Your task to perform on an android device: Open the phone app and click the voicemail tab. Image 0: 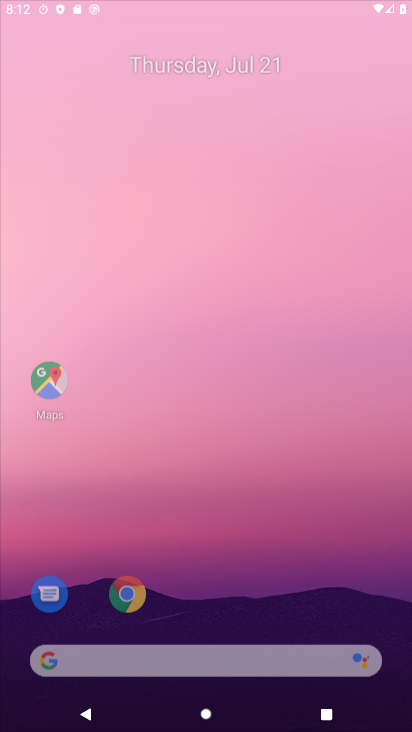
Step 0: press home button
Your task to perform on an android device: Open the phone app and click the voicemail tab. Image 1: 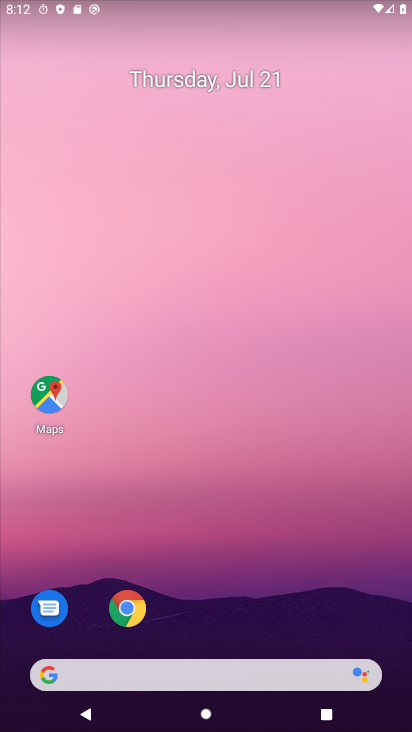
Step 1: drag from (298, 621) to (357, 3)
Your task to perform on an android device: Open the phone app and click the voicemail tab. Image 2: 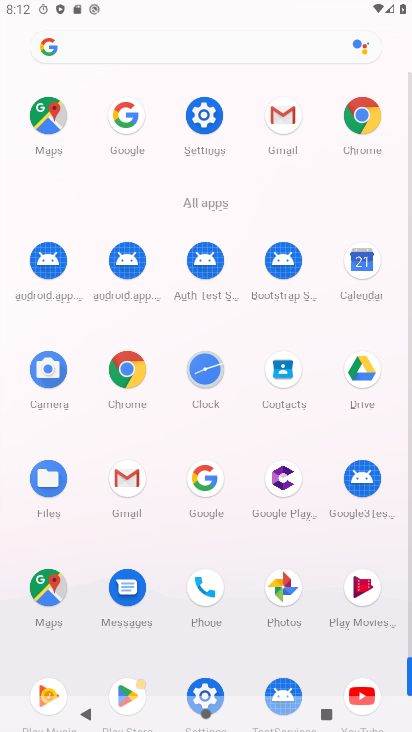
Step 2: click (202, 606)
Your task to perform on an android device: Open the phone app and click the voicemail tab. Image 3: 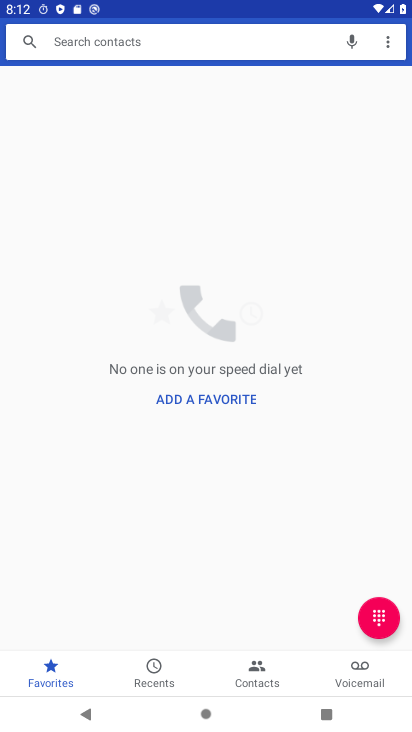
Step 3: click (369, 671)
Your task to perform on an android device: Open the phone app and click the voicemail tab. Image 4: 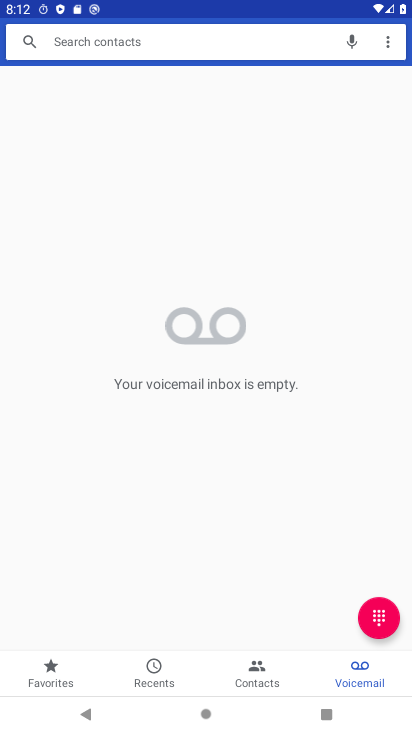
Step 4: task complete